Your task to perform on an android device: turn on improve location accuracy Image 0: 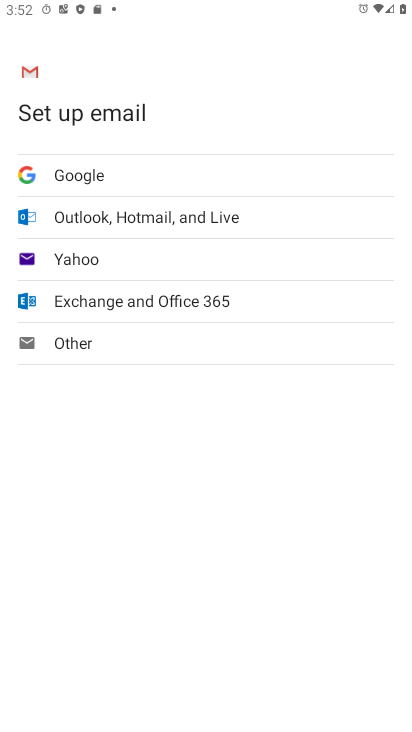
Step 0: press home button
Your task to perform on an android device: turn on improve location accuracy Image 1: 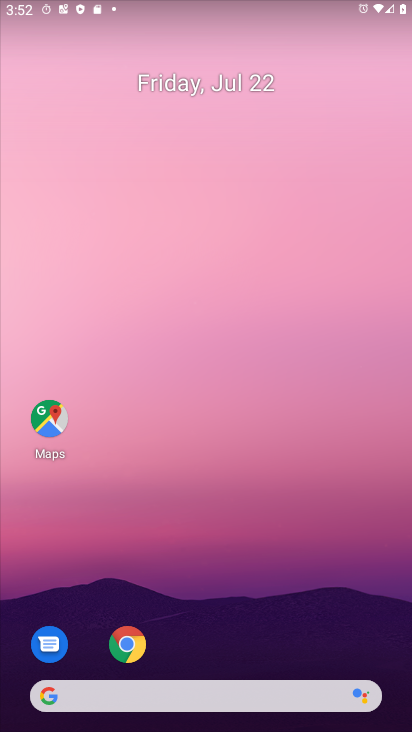
Step 1: drag from (205, 539) to (125, 158)
Your task to perform on an android device: turn on improve location accuracy Image 2: 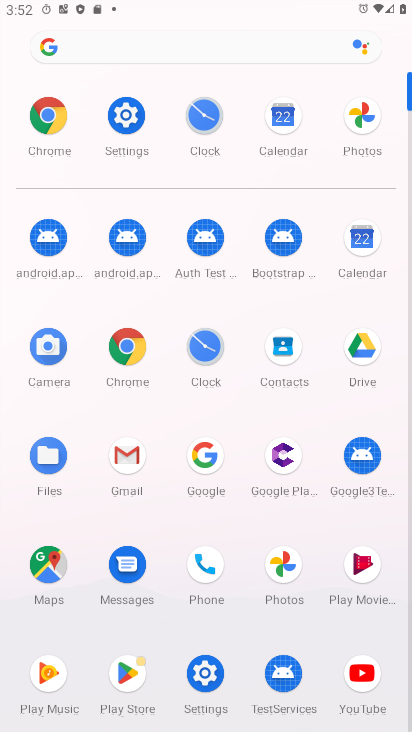
Step 2: click (127, 128)
Your task to perform on an android device: turn on improve location accuracy Image 3: 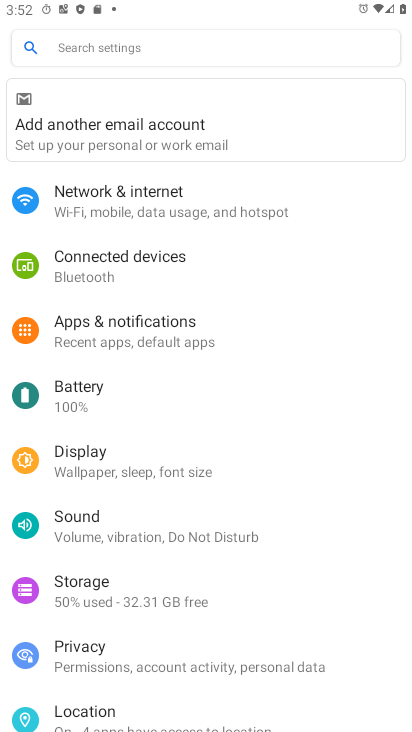
Step 3: click (94, 724)
Your task to perform on an android device: turn on improve location accuracy Image 4: 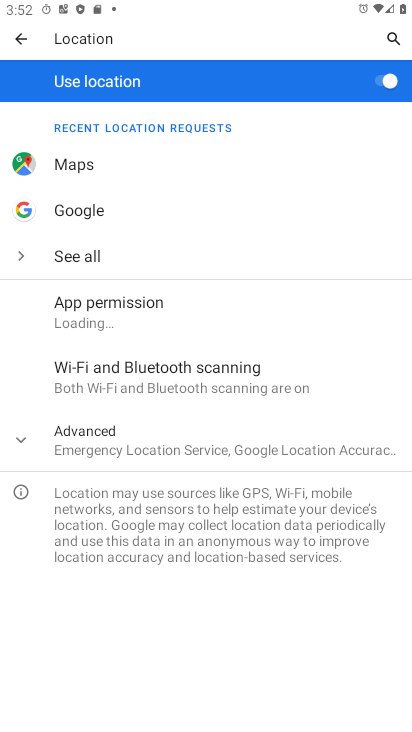
Step 4: click (106, 441)
Your task to perform on an android device: turn on improve location accuracy Image 5: 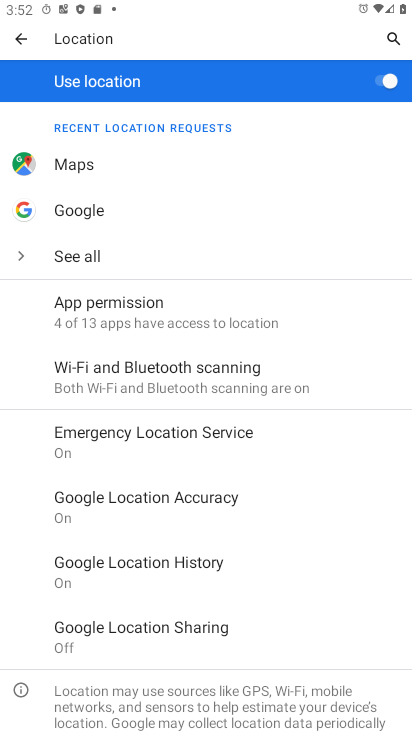
Step 5: click (141, 502)
Your task to perform on an android device: turn on improve location accuracy Image 6: 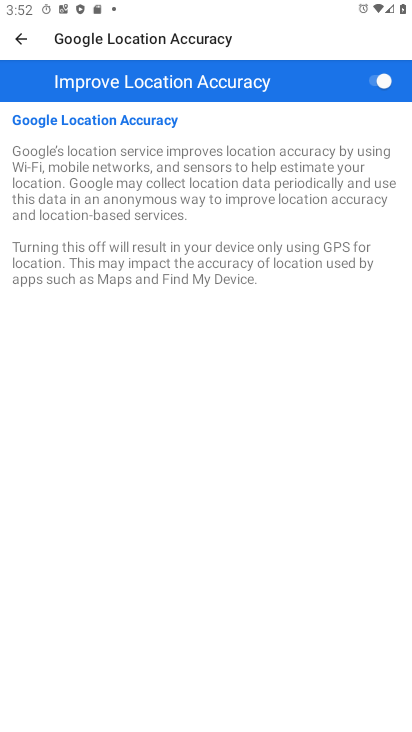
Step 6: task complete